Your task to perform on an android device: Go to Android settings Image 0: 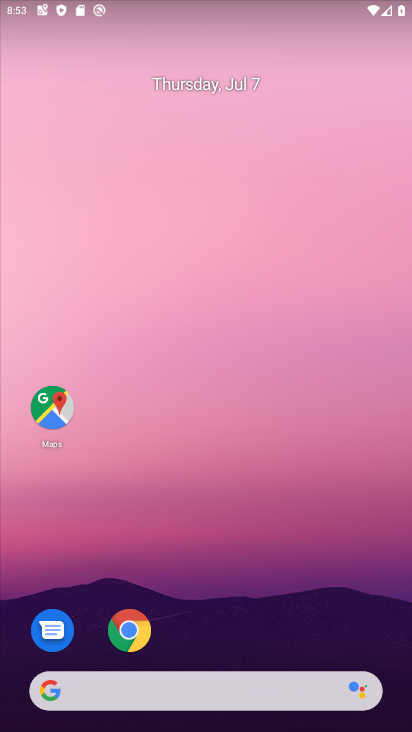
Step 0: drag from (180, 655) to (18, 37)
Your task to perform on an android device: Go to Android settings Image 1: 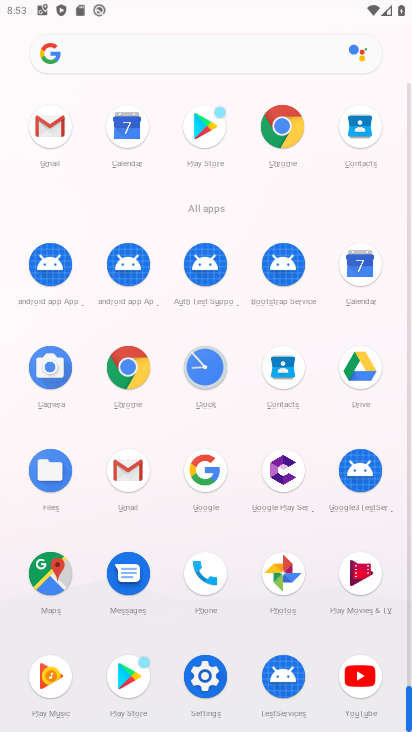
Step 1: click (201, 672)
Your task to perform on an android device: Go to Android settings Image 2: 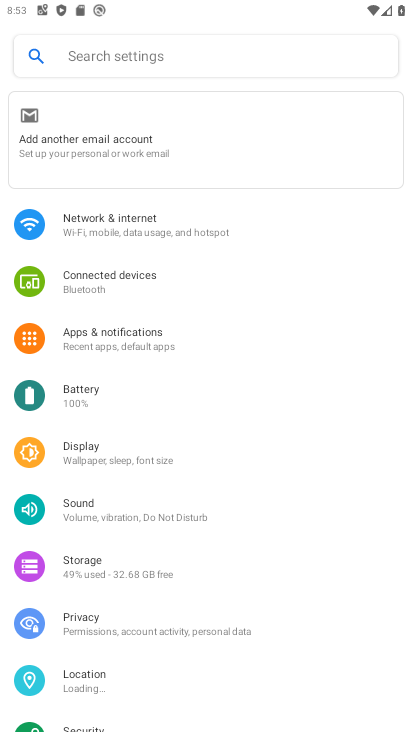
Step 2: drag from (111, 423) to (178, 117)
Your task to perform on an android device: Go to Android settings Image 3: 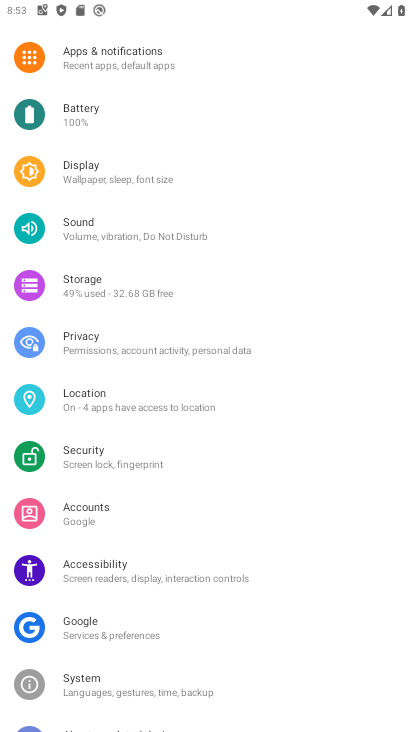
Step 3: drag from (205, 588) to (209, 202)
Your task to perform on an android device: Go to Android settings Image 4: 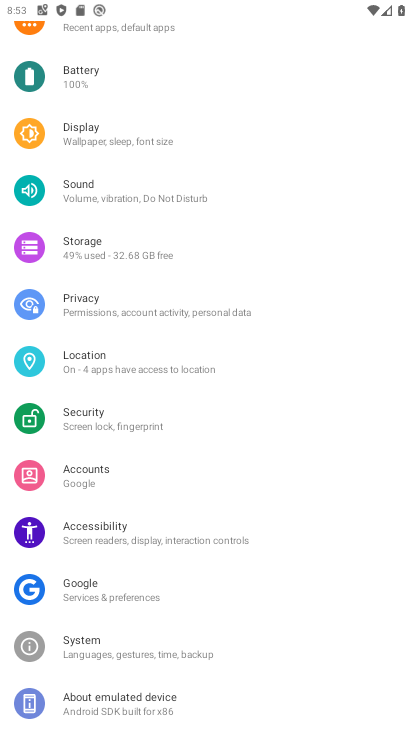
Step 4: drag from (273, 115) to (275, 660)
Your task to perform on an android device: Go to Android settings Image 5: 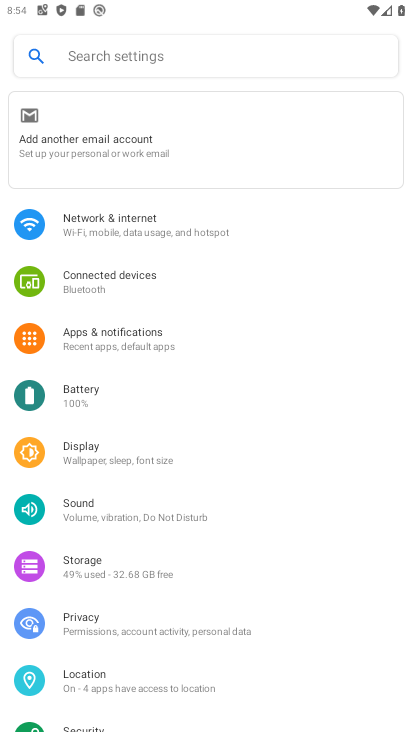
Step 5: drag from (228, 174) to (266, 596)
Your task to perform on an android device: Go to Android settings Image 6: 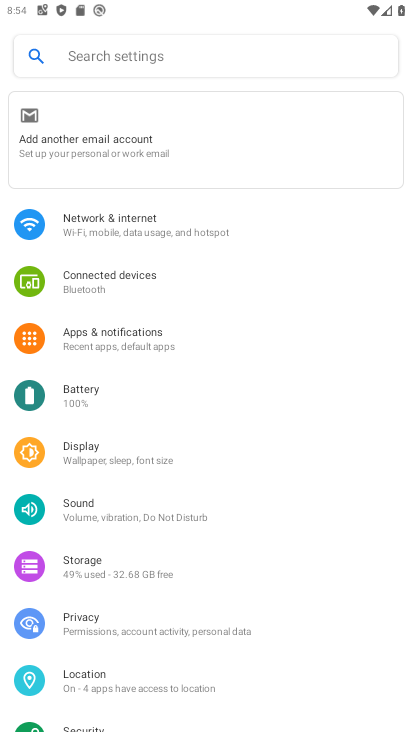
Step 6: drag from (259, 563) to (262, 1)
Your task to perform on an android device: Go to Android settings Image 7: 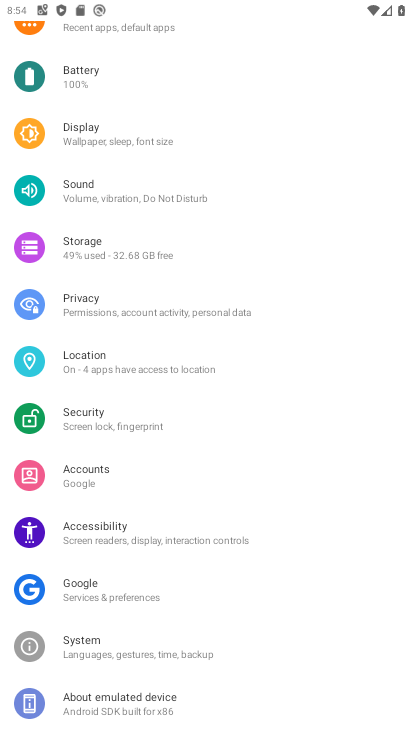
Step 7: drag from (159, 478) to (159, 169)
Your task to perform on an android device: Go to Android settings Image 8: 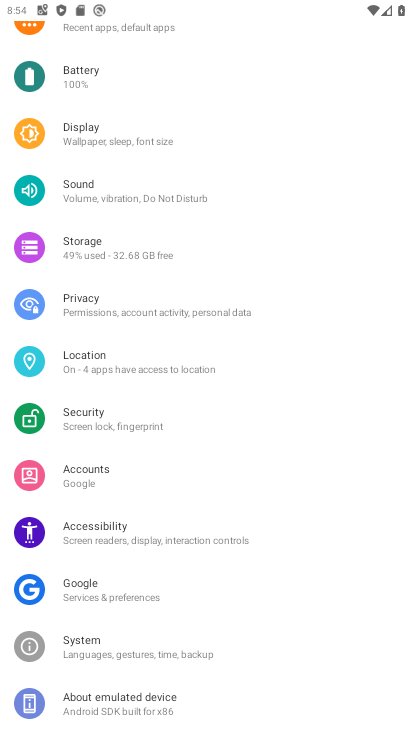
Step 8: drag from (148, 584) to (148, 328)
Your task to perform on an android device: Go to Android settings Image 9: 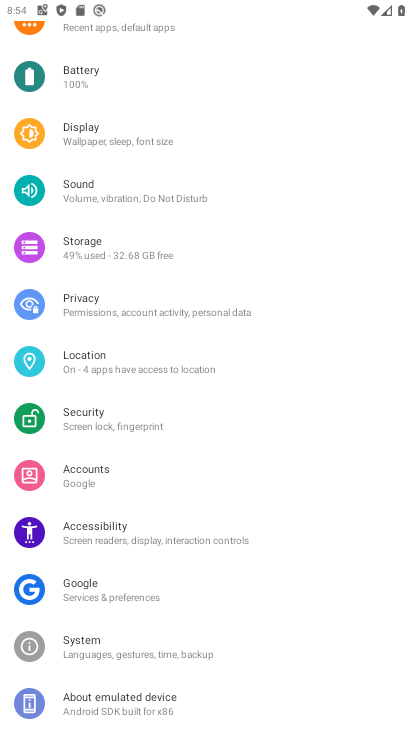
Step 9: click (110, 710)
Your task to perform on an android device: Go to Android settings Image 10: 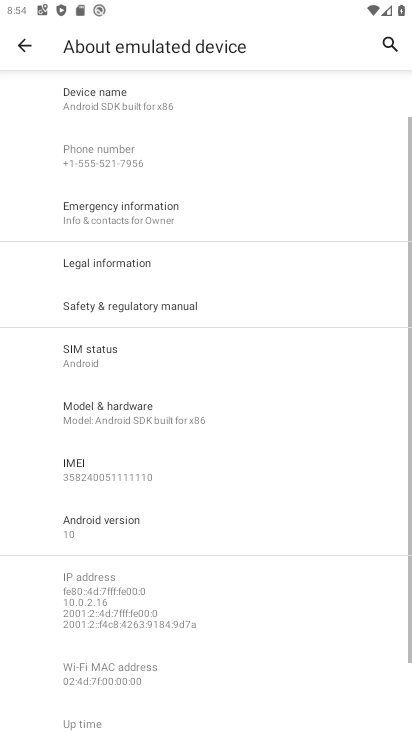
Step 10: drag from (116, 636) to (120, 198)
Your task to perform on an android device: Go to Android settings Image 11: 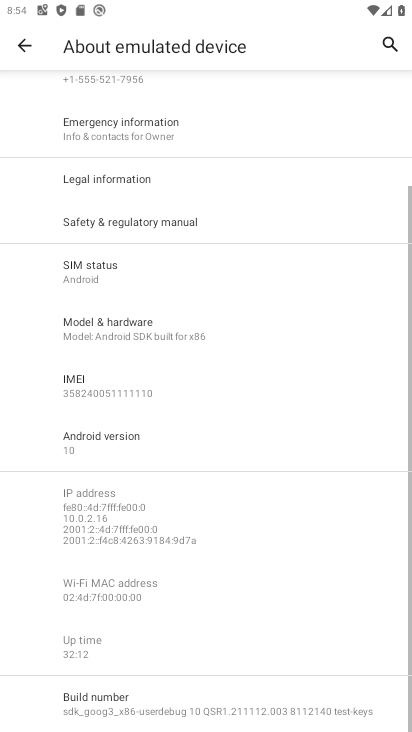
Step 11: drag from (244, 218) to (252, 602)
Your task to perform on an android device: Go to Android settings Image 12: 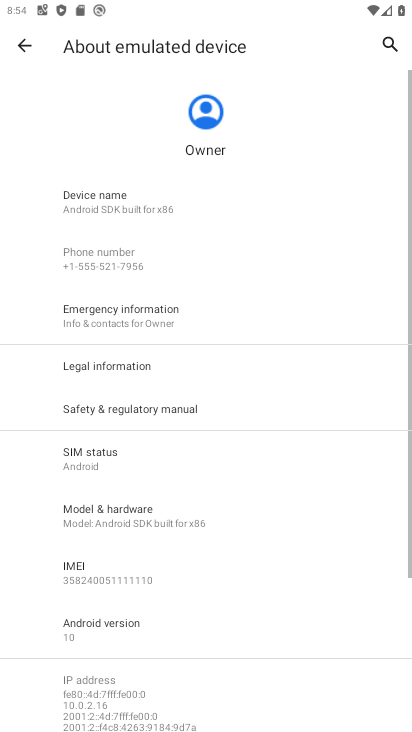
Step 12: click (126, 614)
Your task to perform on an android device: Go to Android settings Image 13: 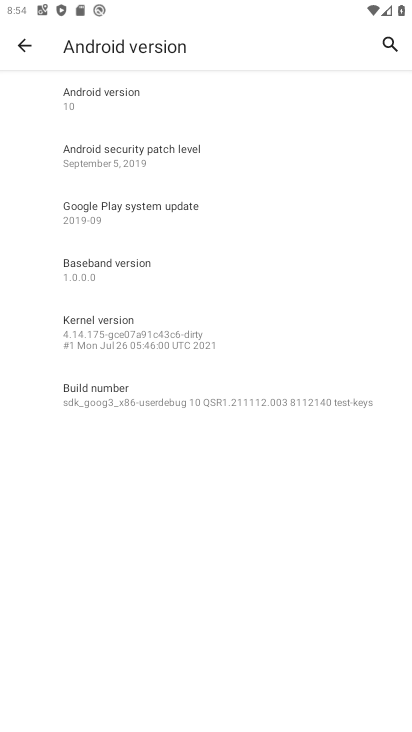
Step 13: drag from (152, 594) to (156, 306)
Your task to perform on an android device: Go to Android settings Image 14: 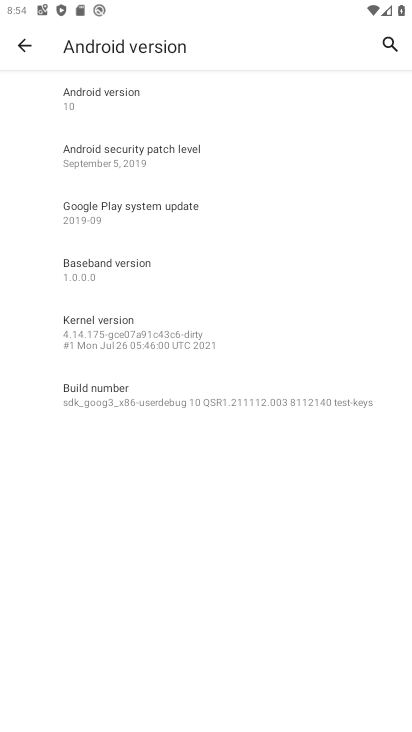
Step 14: click (132, 90)
Your task to perform on an android device: Go to Android settings Image 15: 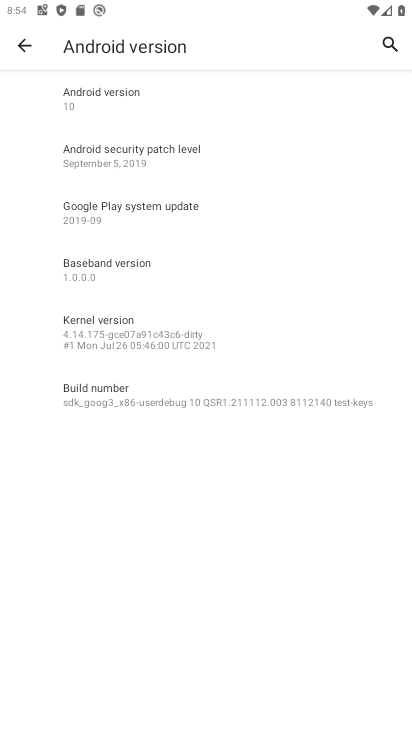
Step 15: task complete